Your task to perform on an android device: Search for "asus rog" on newegg, select the first entry, and add it to the cart. Image 0: 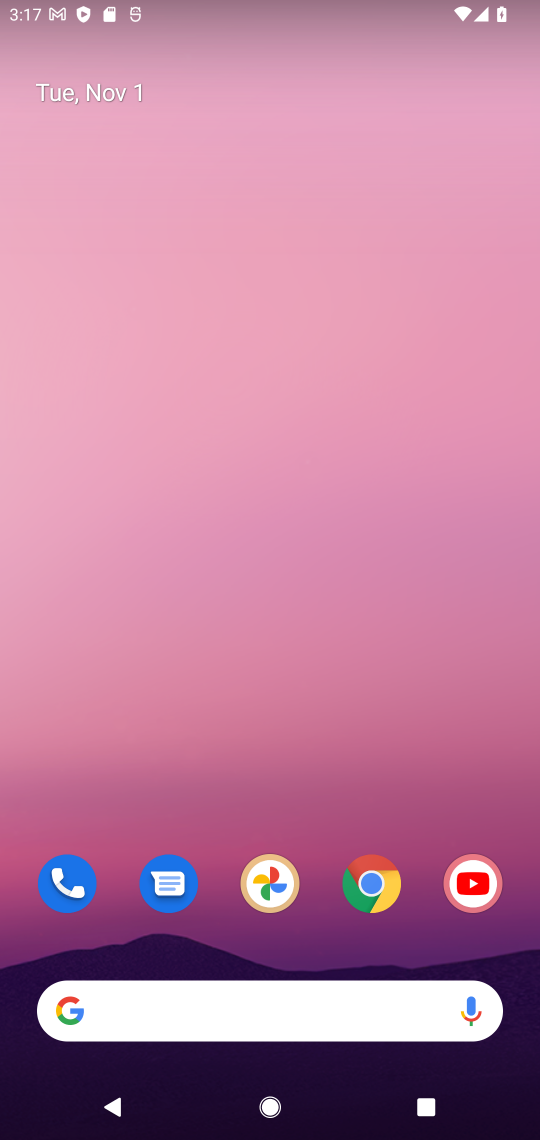
Step 0: click (364, 872)
Your task to perform on an android device: Search for "asus rog" on newegg, select the first entry, and add it to the cart. Image 1: 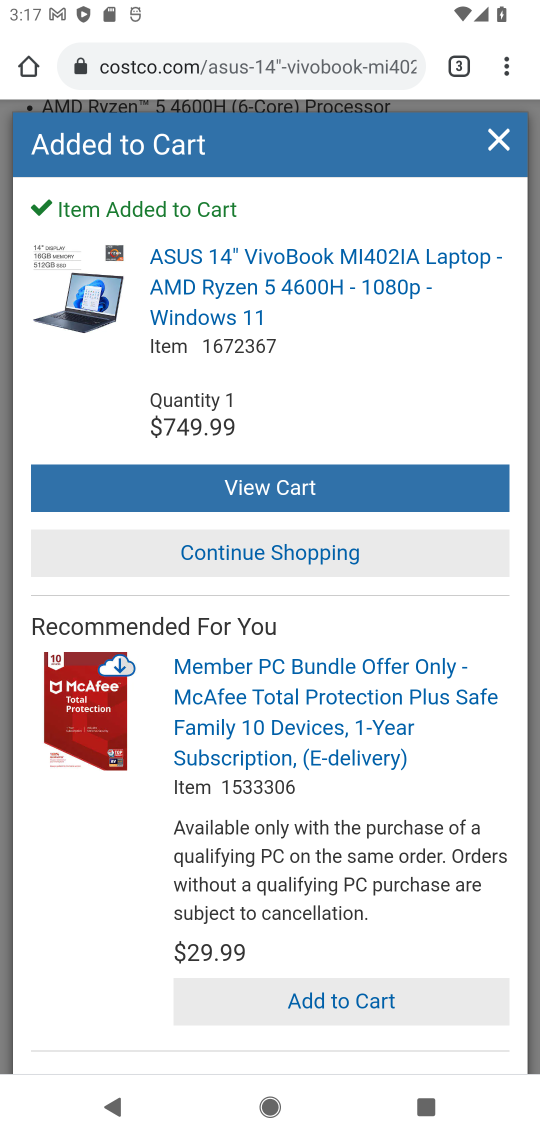
Step 1: click (461, 65)
Your task to perform on an android device: Search for "asus rog" on newegg, select the first entry, and add it to the cart. Image 2: 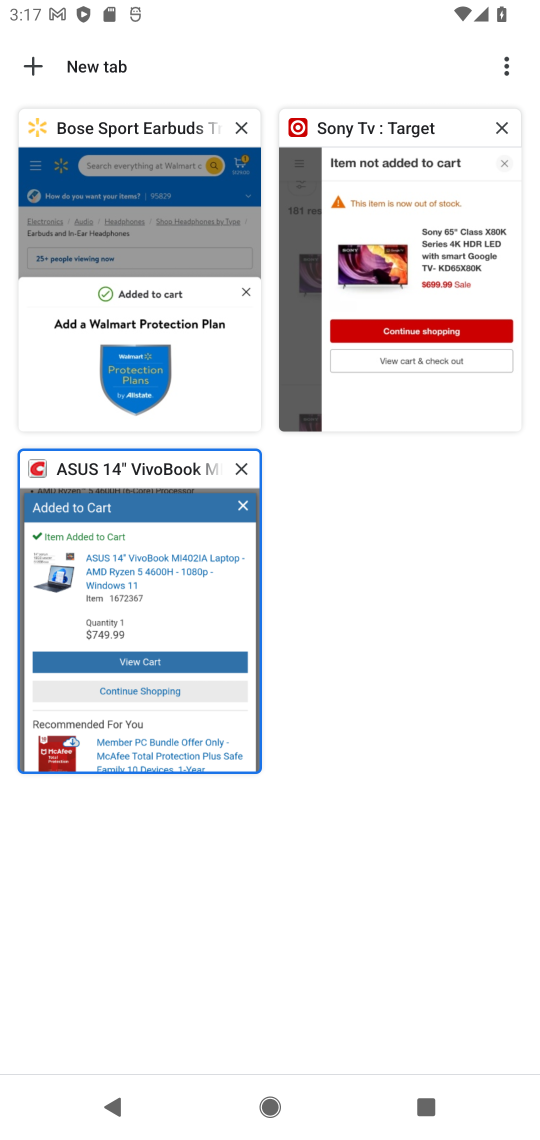
Step 2: click (28, 69)
Your task to perform on an android device: Search for "asus rog" on newegg, select the first entry, and add it to the cart. Image 3: 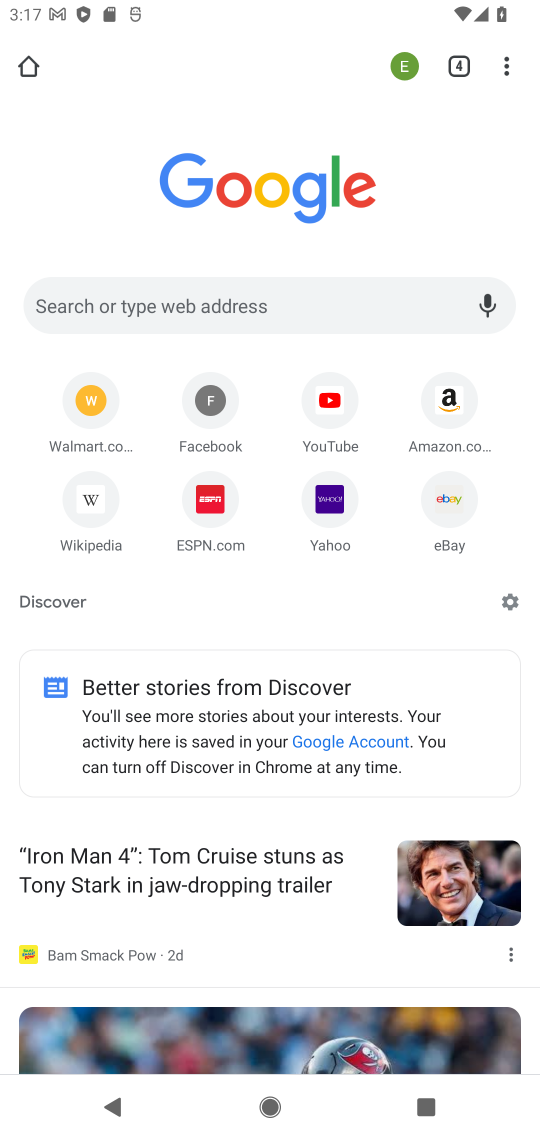
Step 3: click (252, 290)
Your task to perform on an android device: Search for "asus rog" on newegg, select the first entry, and add it to the cart. Image 4: 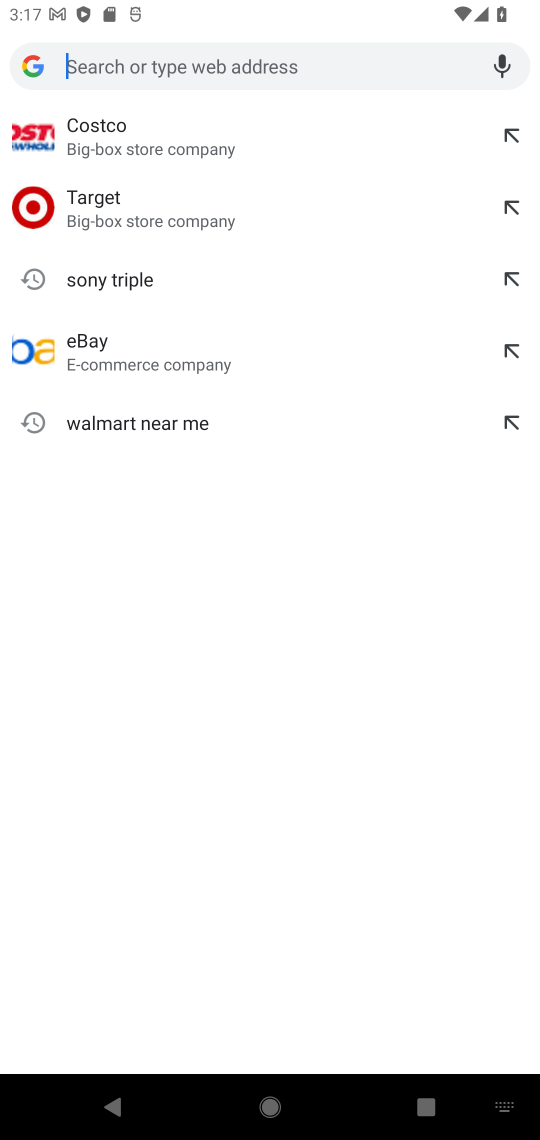
Step 4: type "newegg"
Your task to perform on an android device: Search for "asus rog" on newegg, select the first entry, and add it to the cart. Image 5: 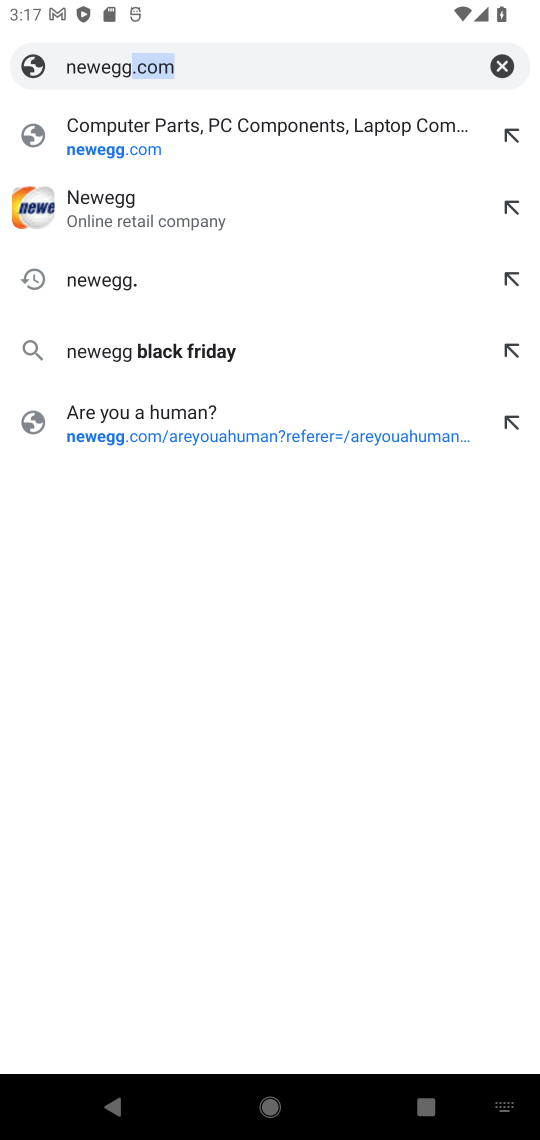
Step 5: click (125, 136)
Your task to perform on an android device: Search for "asus rog" on newegg, select the first entry, and add it to the cart. Image 6: 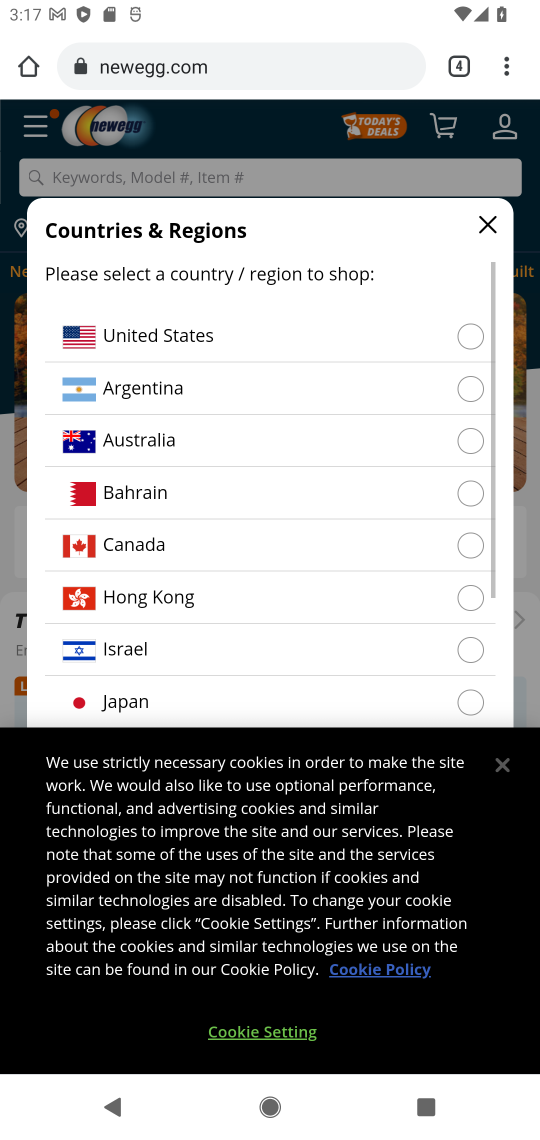
Step 6: click (476, 338)
Your task to perform on an android device: Search for "asus rog" on newegg, select the first entry, and add it to the cart. Image 7: 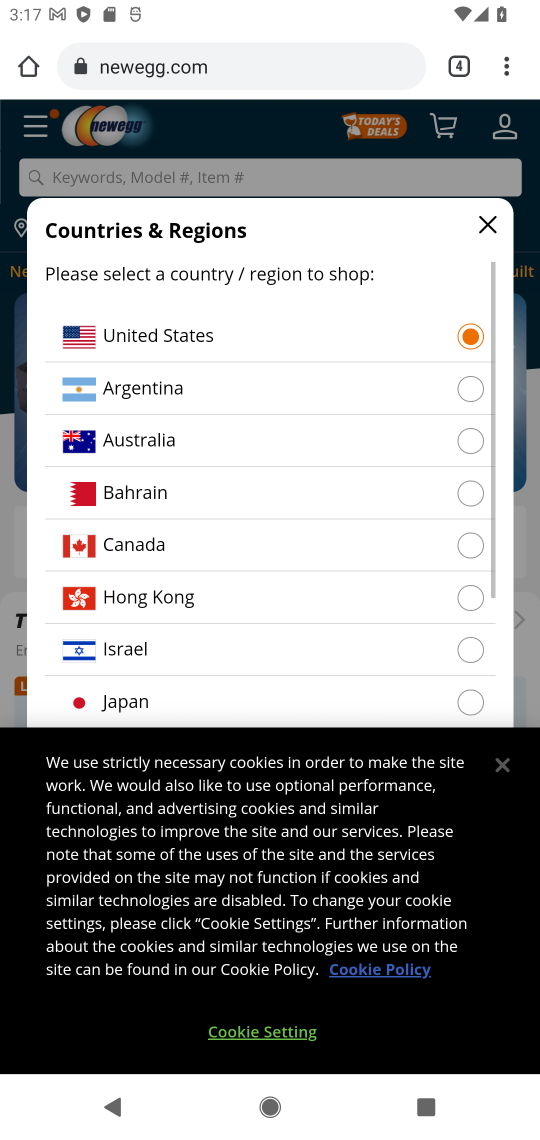
Step 7: click (503, 772)
Your task to perform on an android device: Search for "asus rog" on newegg, select the first entry, and add it to the cart. Image 8: 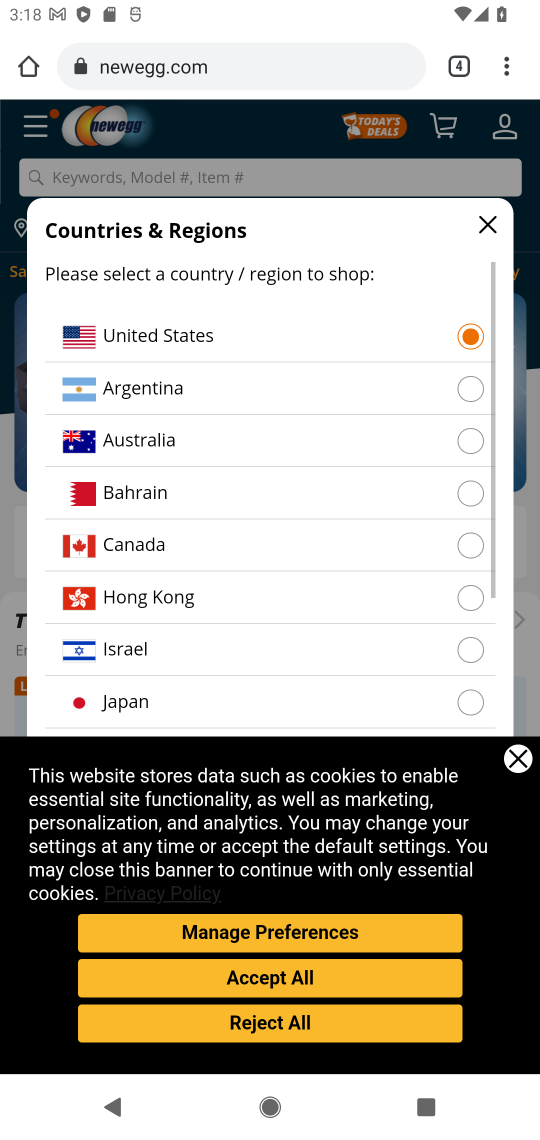
Step 8: click (522, 754)
Your task to perform on an android device: Search for "asus rog" on newegg, select the first entry, and add it to the cart. Image 9: 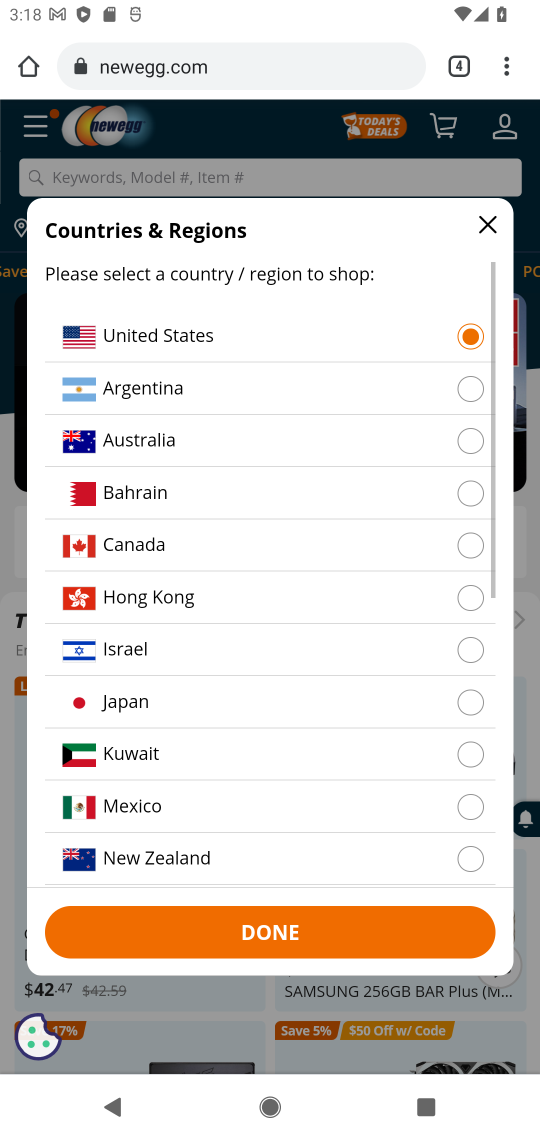
Step 9: click (268, 935)
Your task to perform on an android device: Search for "asus rog" on newegg, select the first entry, and add it to the cart. Image 10: 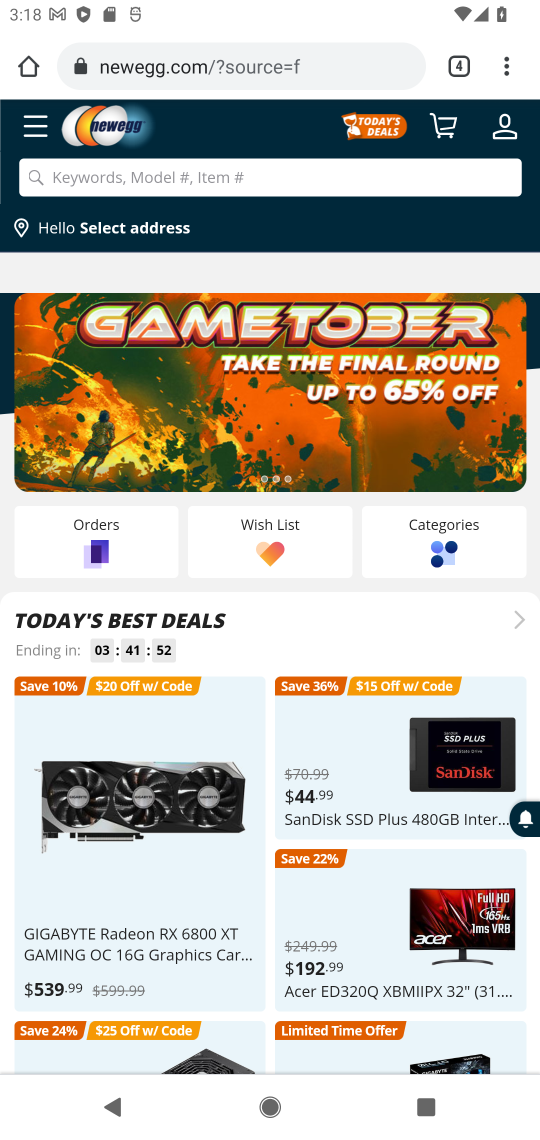
Step 10: click (263, 187)
Your task to perform on an android device: Search for "asus rog" on newegg, select the first entry, and add it to the cart. Image 11: 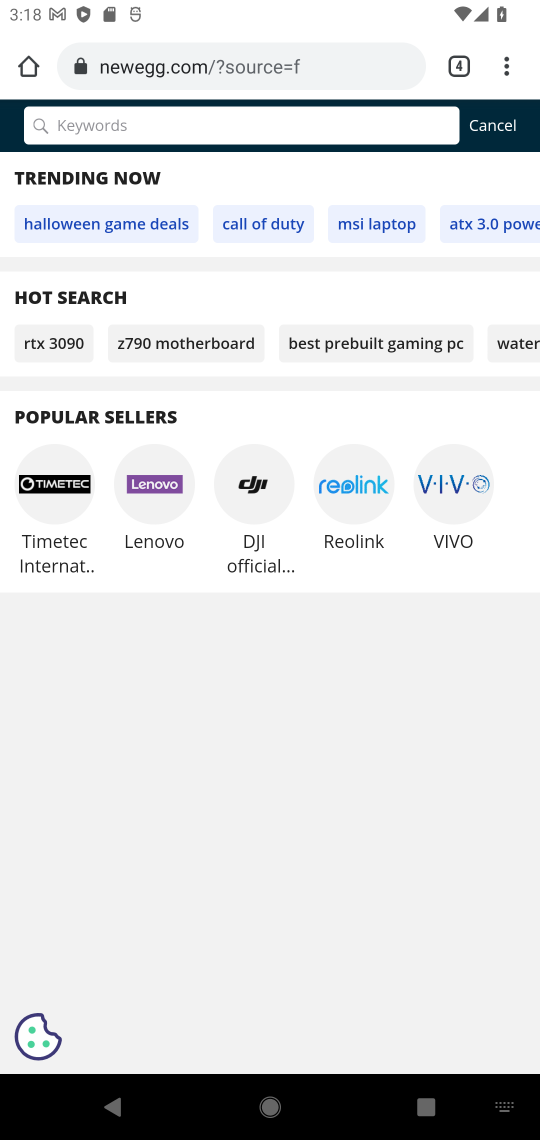
Step 11: type "asus rog"
Your task to perform on an android device: Search for "asus rog" on newegg, select the first entry, and add it to the cart. Image 12: 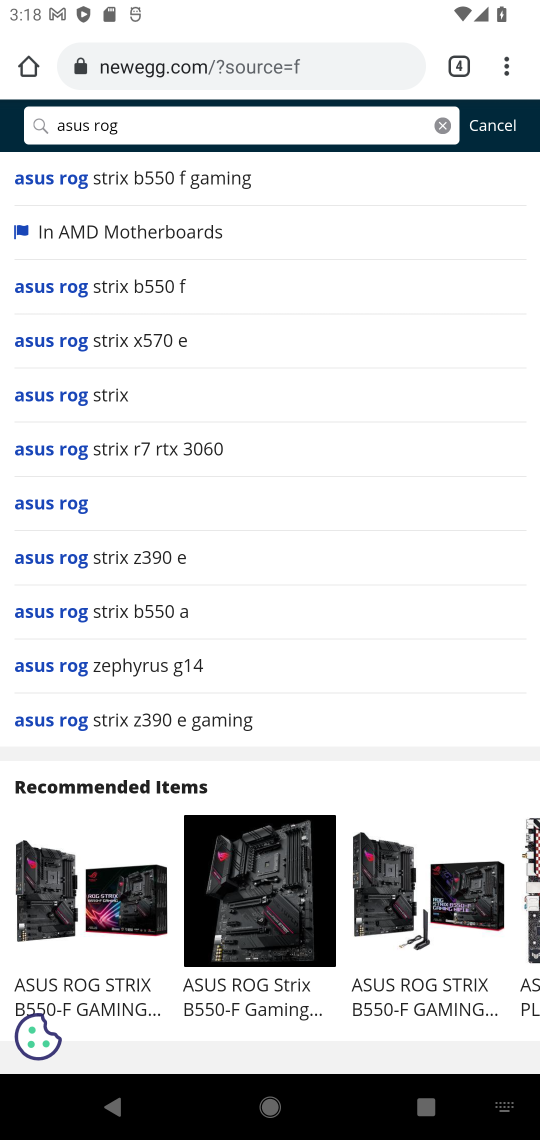
Step 12: click (117, 183)
Your task to perform on an android device: Search for "asus rog" on newegg, select the first entry, and add it to the cart. Image 13: 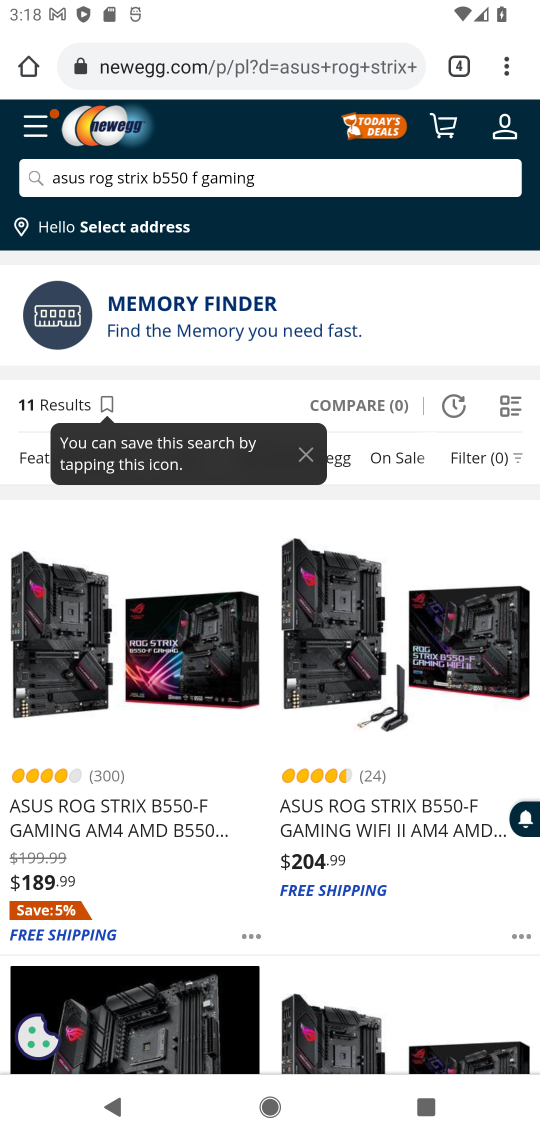
Step 13: click (88, 826)
Your task to perform on an android device: Search for "asus rog" on newegg, select the first entry, and add it to the cart. Image 14: 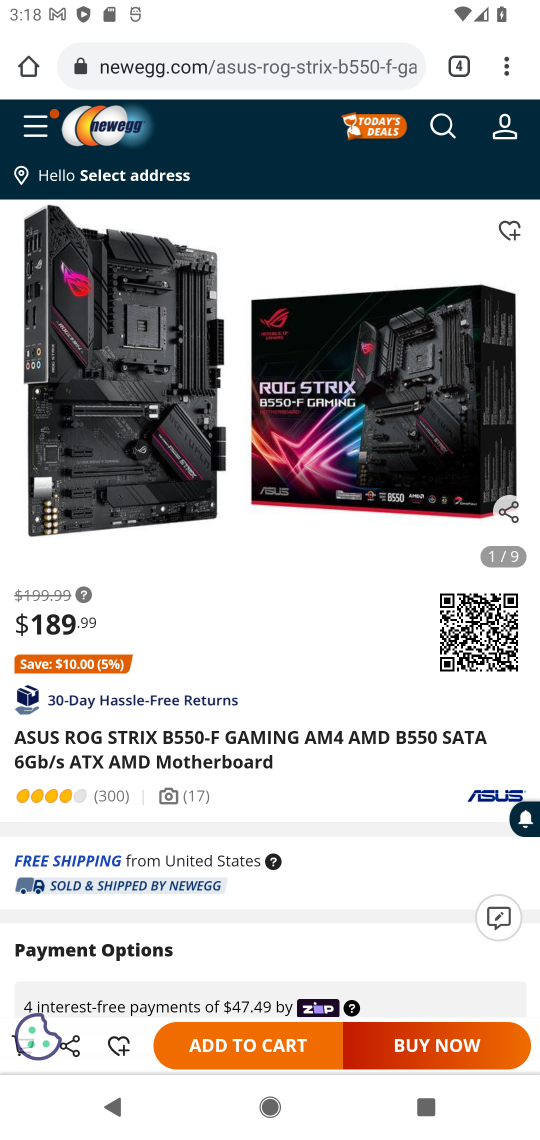
Step 14: click (274, 1036)
Your task to perform on an android device: Search for "asus rog" on newegg, select the first entry, and add it to the cart. Image 15: 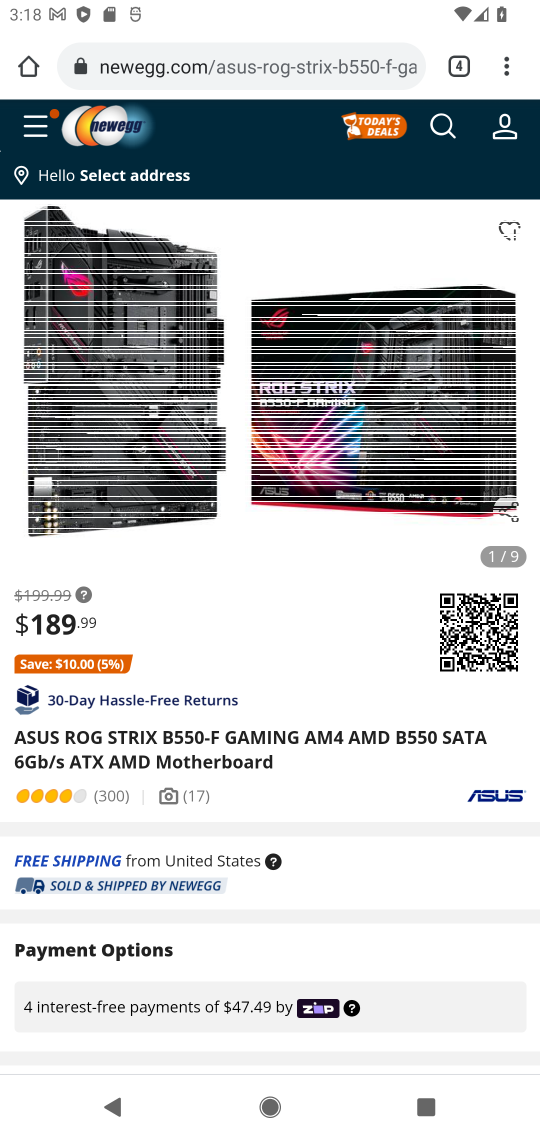
Step 15: click (272, 1052)
Your task to perform on an android device: Search for "asus rog" on newegg, select the first entry, and add it to the cart. Image 16: 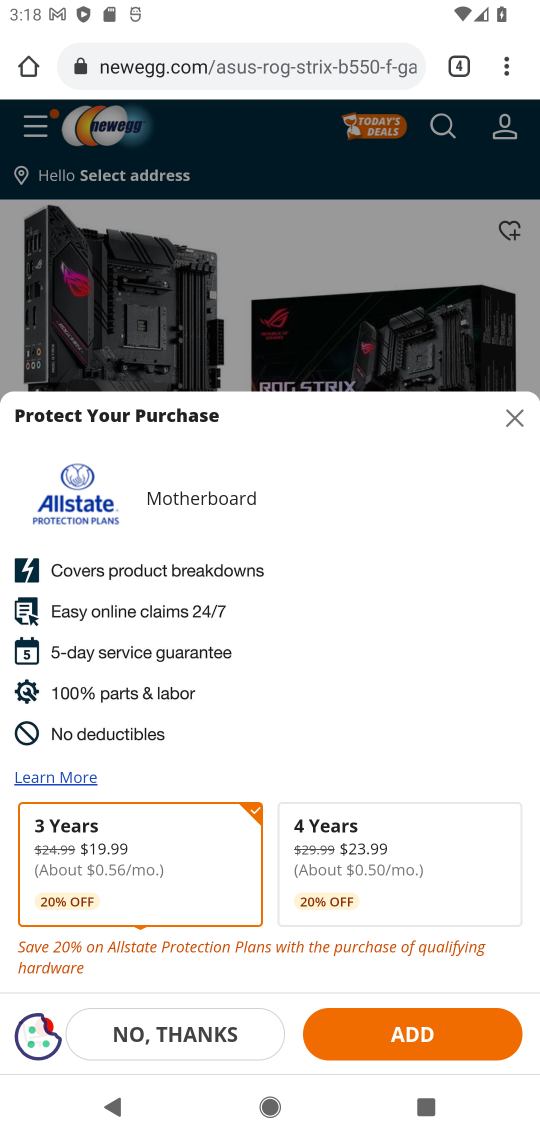
Step 16: task complete